Your task to perform on an android device: Open the calendar and show me this week's events? Image 0: 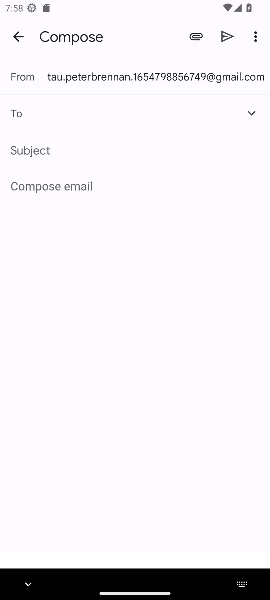
Step 0: press home button
Your task to perform on an android device: Open the calendar and show me this week's events? Image 1: 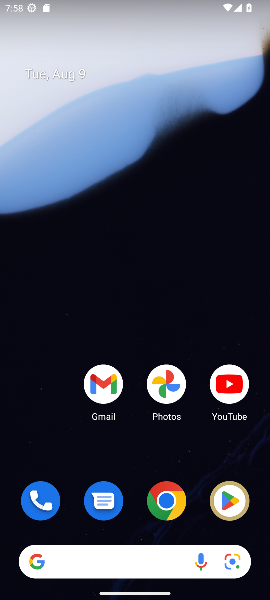
Step 1: drag from (133, 442) to (152, 23)
Your task to perform on an android device: Open the calendar and show me this week's events? Image 2: 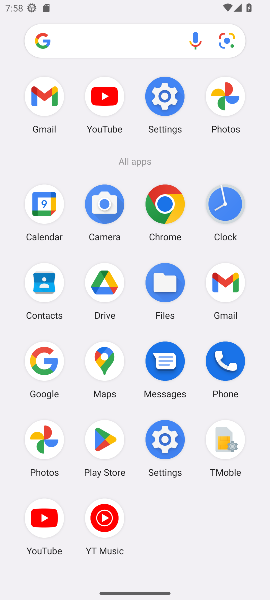
Step 2: click (38, 213)
Your task to perform on an android device: Open the calendar and show me this week's events? Image 3: 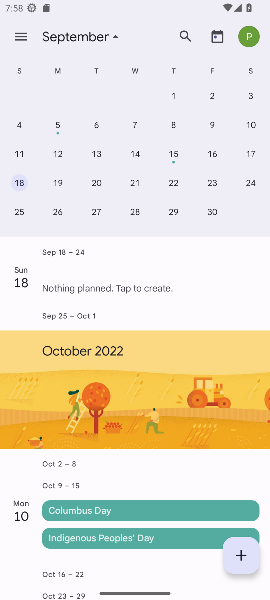
Step 3: drag from (51, 169) to (206, 152)
Your task to perform on an android device: Open the calendar and show me this week's events? Image 4: 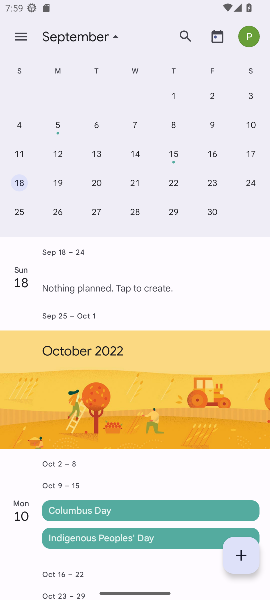
Step 4: drag from (33, 161) to (230, 163)
Your task to perform on an android device: Open the calendar and show me this week's events? Image 5: 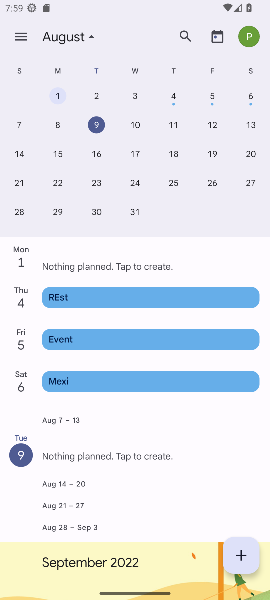
Step 5: click (95, 126)
Your task to perform on an android device: Open the calendar and show me this week's events? Image 6: 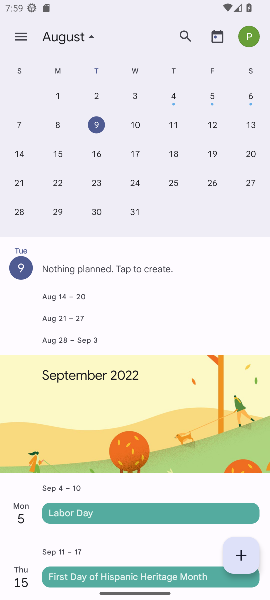
Step 6: click (140, 127)
Your task to perform on an android device: Open the calendar and show me this week's events? Image 7: 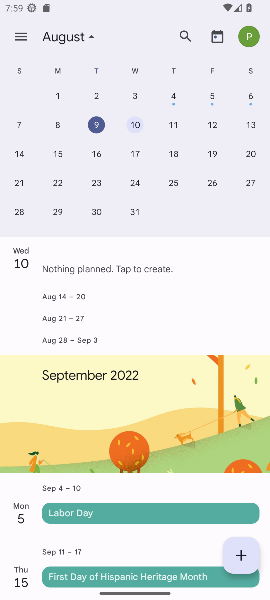
Step 7: click (165, 126)
Your task to perform on an android device: Open the calendar and show me this week's events? Image 8: 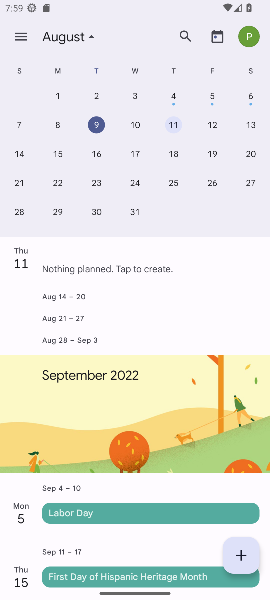
Step 8: click (210, 123)
Your task to perform on an android device: Open the calendar and show me this week's events? Image 9: 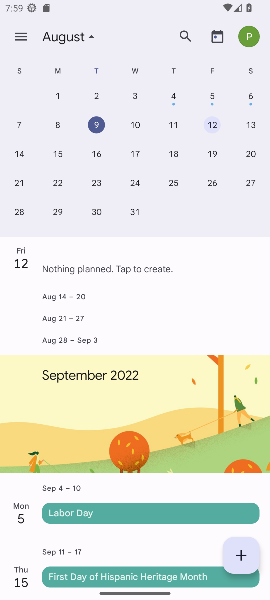
Step 9: click (257, 123)
Your task to perform on an android device: Open the calendar and show me this week's events? Image 10: 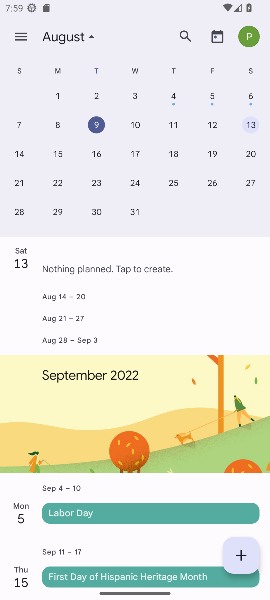
Step 10: task complete